Your task to perform on an android device: Open Google Chrome and open the bookmarks view Image 0: 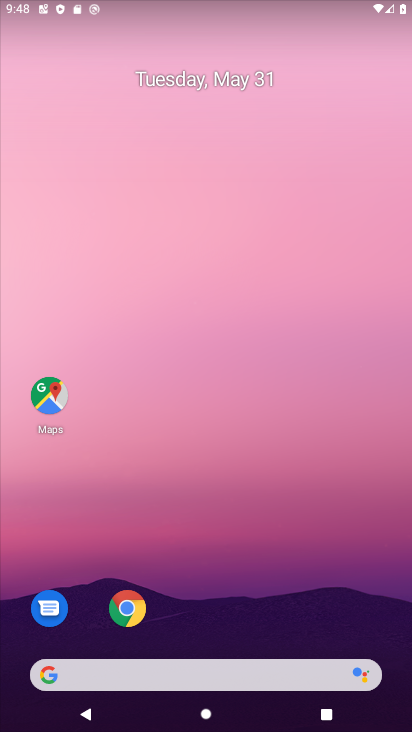
Step 0: click (132, 618)
Your task to perform on an android device: Open Google Chrome and open the bookmarks view Image 1: 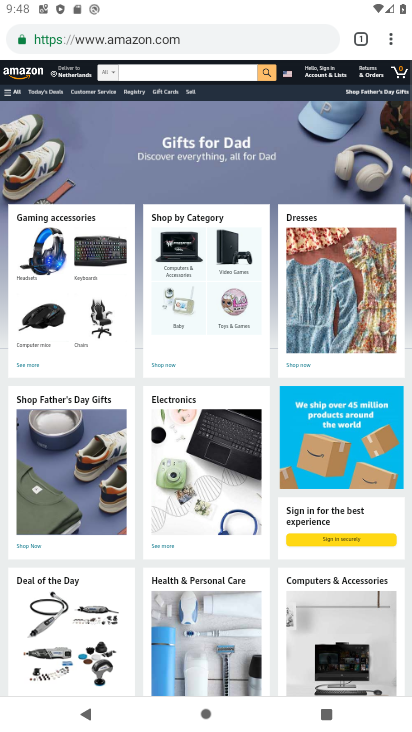
Step 1: click (390, 33)
Your task to perform on an android device: Open Google Chrome and open the bookmarks view Image 2: 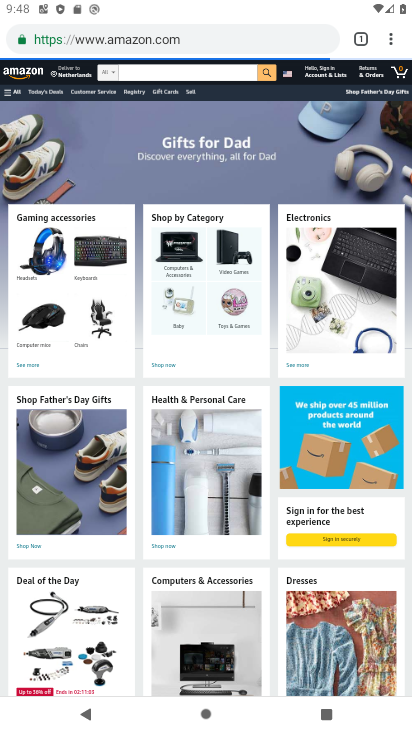
Step 2: task complete